Your task to perform on an android device: find snoozed emails in the gmail app Image 0: 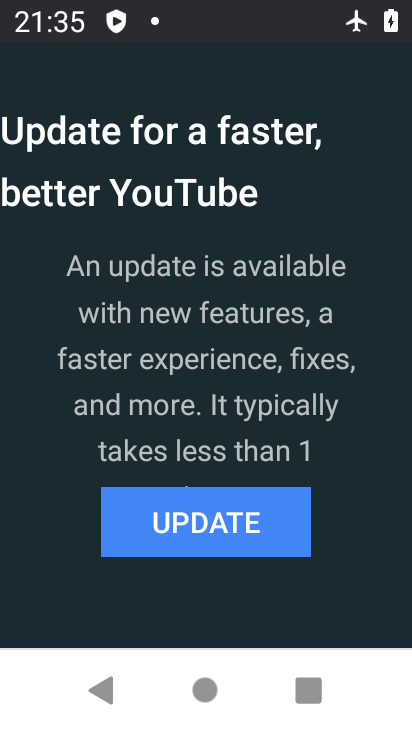
Step 0: press home button
Your task to perform on an android device: find snoozed emails in the gmail app Image 1: 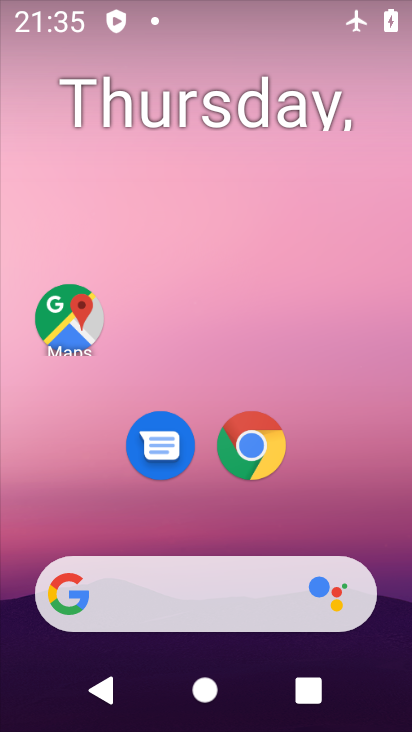
Step 1: drag from (6, 640) to (236, 204)
Your task to perform on an android device: find snoozed emails in the gmail app Image 2: 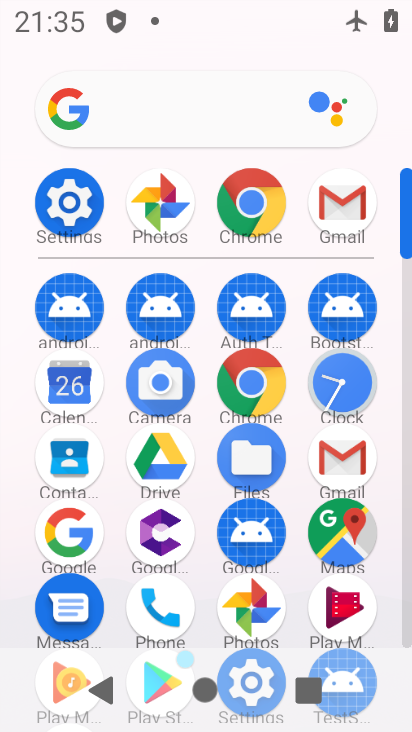
Step 2: click (337, 456)
Your task to perform on an android device: find snoozed emails in the gmail app Image 3: 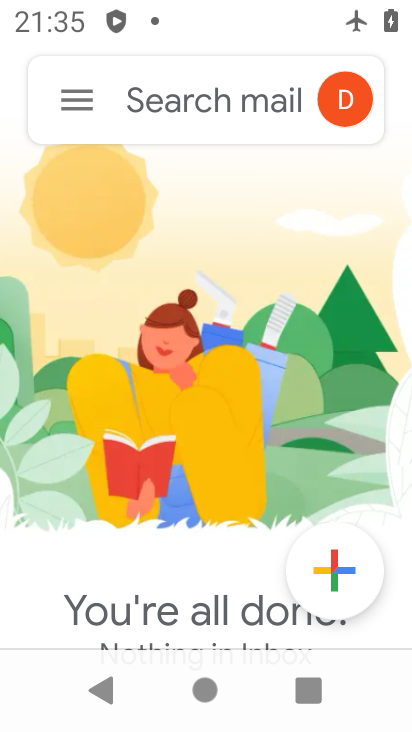
Step 3: click (74, 99)
Your task to perform on an android device: find snoozed emails in the gmail app Image 4: 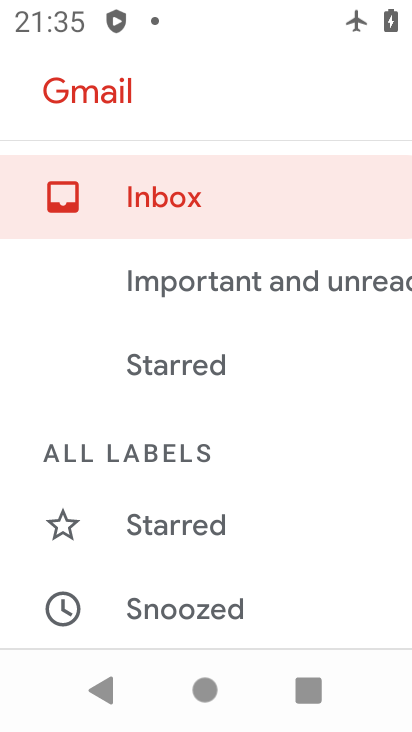
Step 4: click (118, 614)
Your task to perform on an android device: find snoozed emails in the gmail app Image 5: 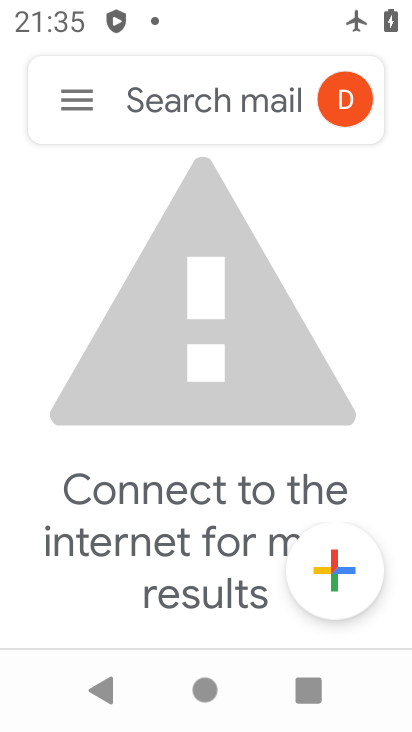
Step 5: task complete